Your task to perform on an android device: Open privacy settings Image 0: 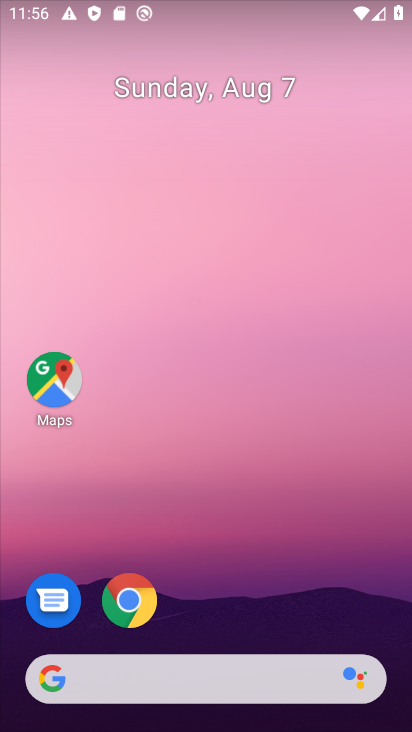
Step 0: drag from (206, 614) to (237, 78)
Your task to perform on an android device: Open privacy settings Image 1: 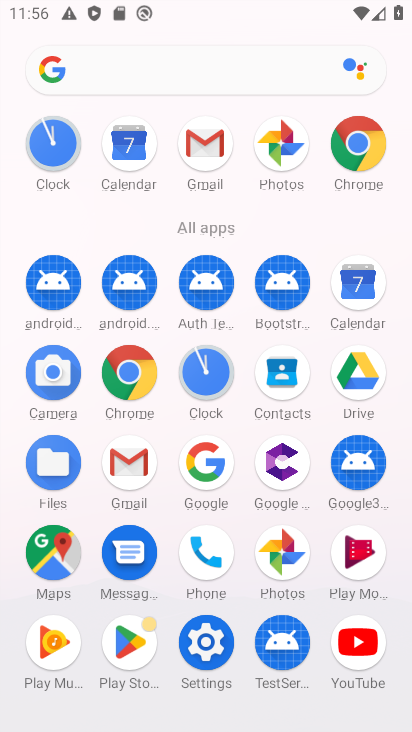
Step 1: click (209, 639)
Your task to perform on an android device: Open privacy settings Image 2: 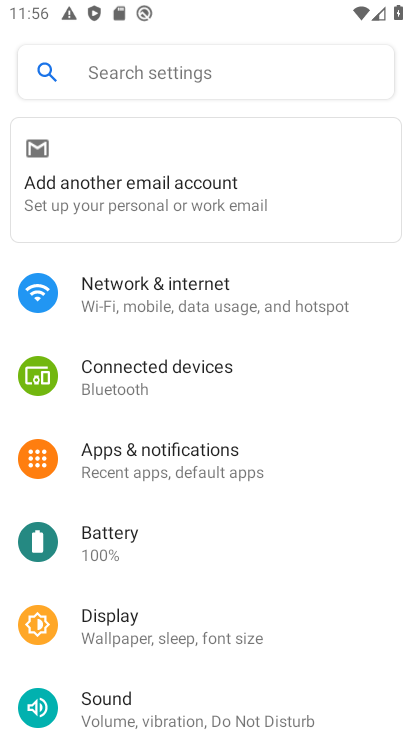
Step 2: click (251, 290)
Your task to perform on an android device: Open privacy settings Image 3: 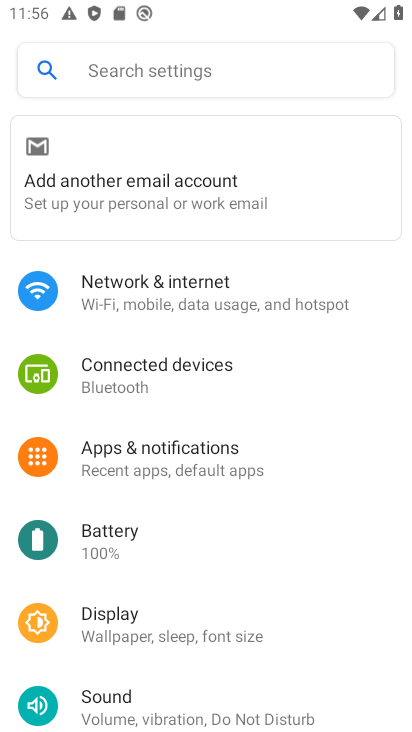
Step 3: drag from (200, 664) to (292, 337)
Your task to perform on an android device: Open privacy settings Image 4: 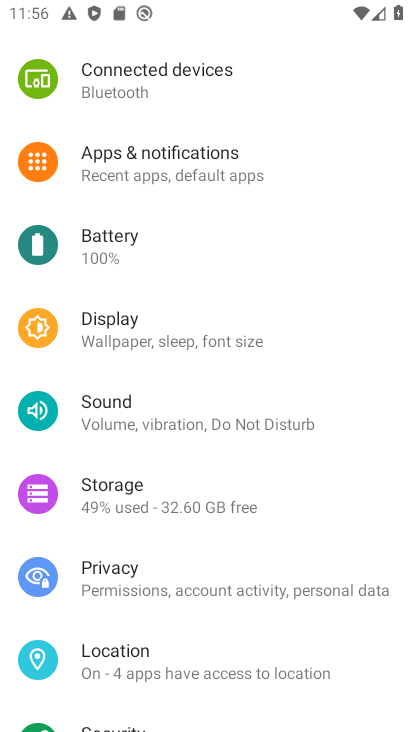
Step 4: click (183, 569)
Your task to perform on an android device: Open privacy settings Image 5: 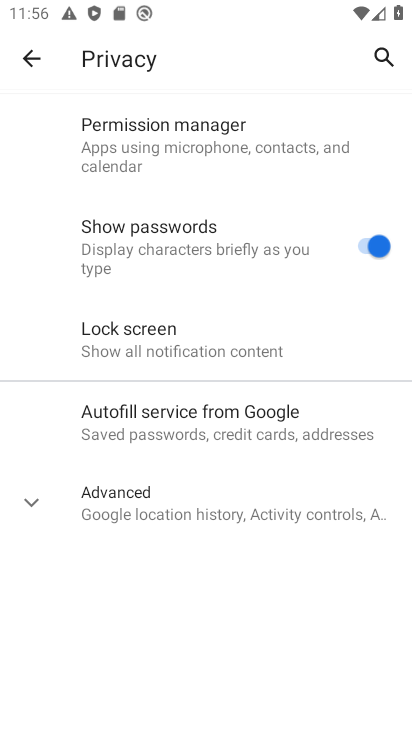
Step 5: task complete